Your task to perform on an android device: Search for seafood restaurants on Google Maps Image 0: 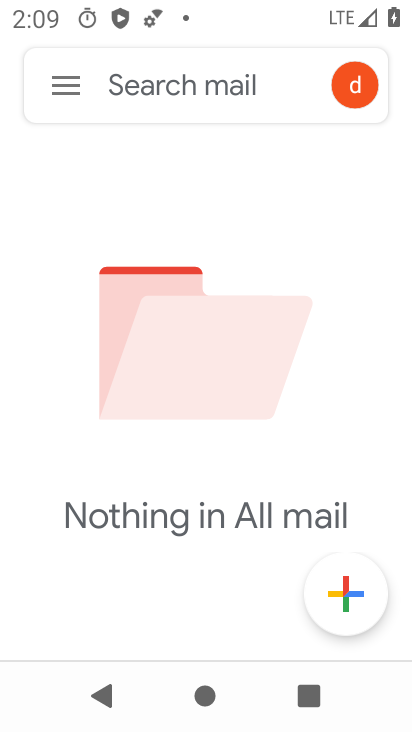
Step 0: press home button
Your task to perform on an android device: Search for seafood restaurants on Google Maps Image 1: 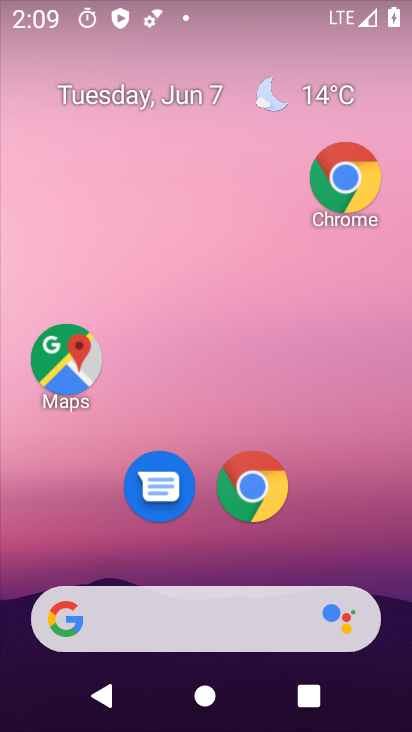
Step 1: click (67, 351)
Your task to perform on an android device: Search for seafood restaurants on Google Maps Image 2: 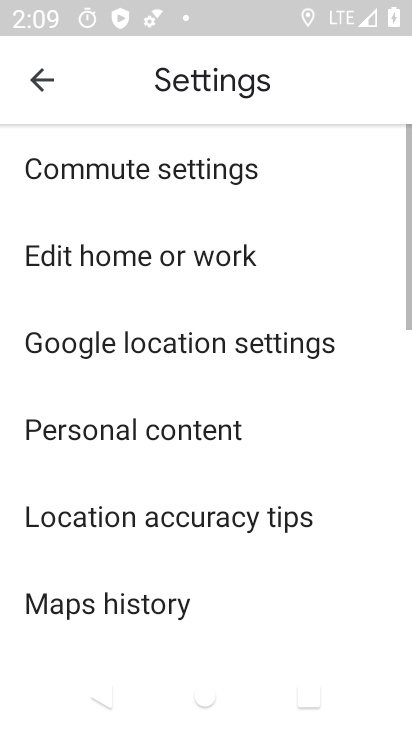
Step 2: click (54, 81)
Your task to perform on an android device: Search for seafood restaurants on Google Maps Image 3: 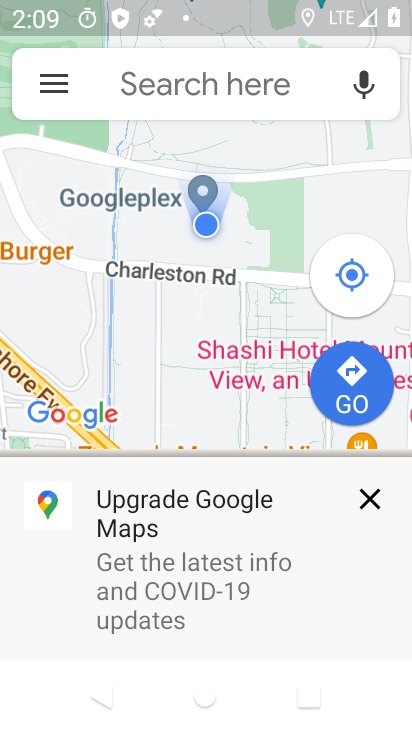
Step 3: click (372, 509)
Your task to perform on an android device: Search for seafood restaurants on Google Maps Image 4: 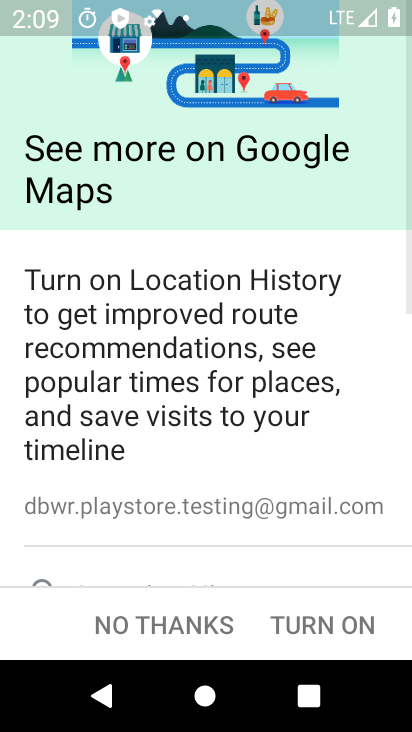
Step 4: click (190, 637)
Your task to perform on an android device: Search for seafood restaurants on Google Maps Image 5: 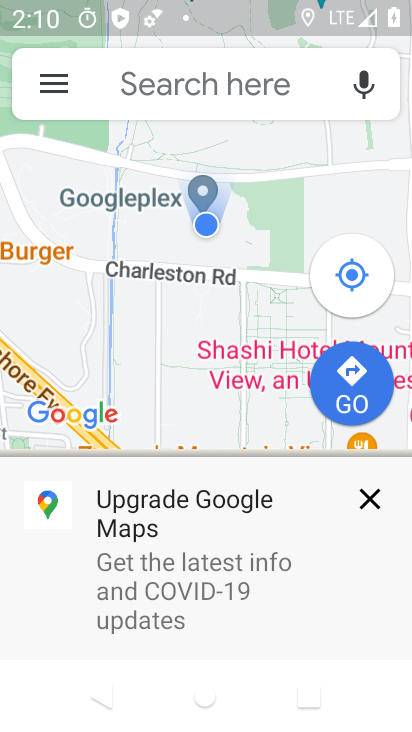
Step 5: click (366, 504)
Your task to perform on an android device: Search for seafood restaurants on Google Maps Image 6: 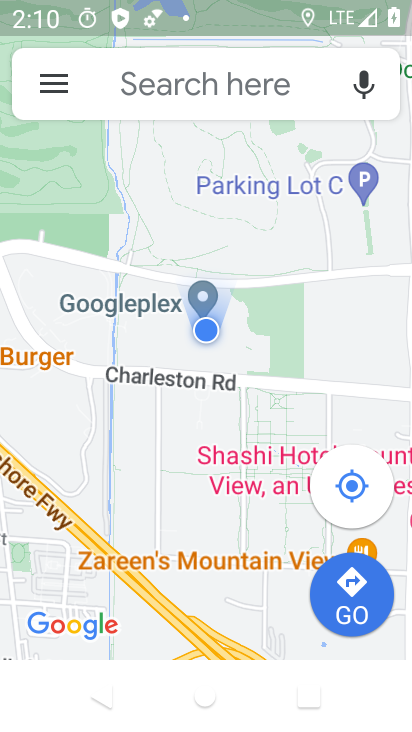
Step 6: click (210, 86)
Your task to perform on an android device: Search for seafood restaurants on Google Maps Image 7: 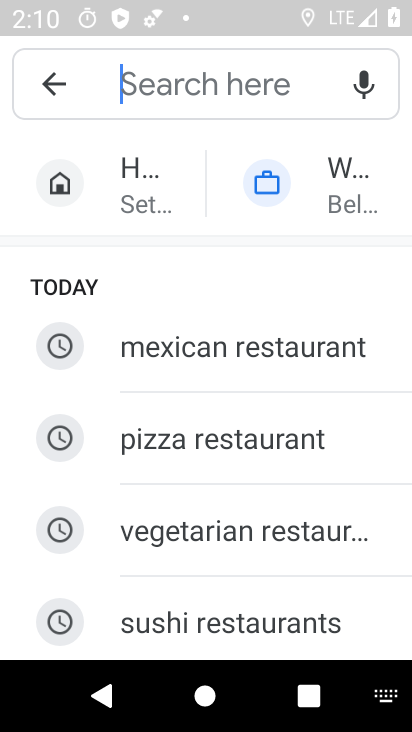
Step 7: type "seafood restaurants"
Your task to perform on an android device: Search for seafood restaurants on Google Maps Image 8: 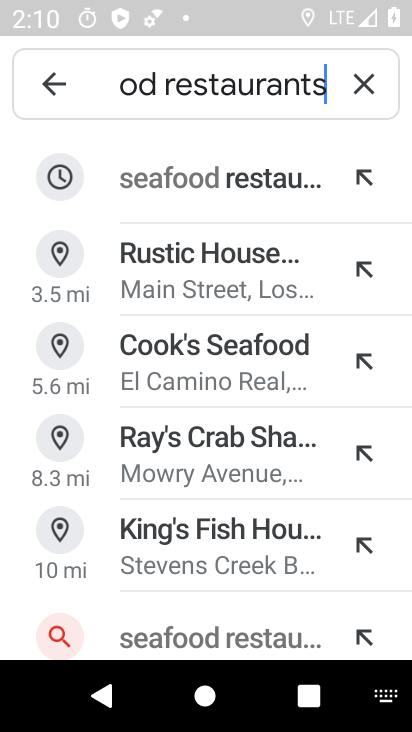
Step 8: click (237, 171)
Your task to perform on an android device: Search for seafood restaurants on Google Maps Image 9: 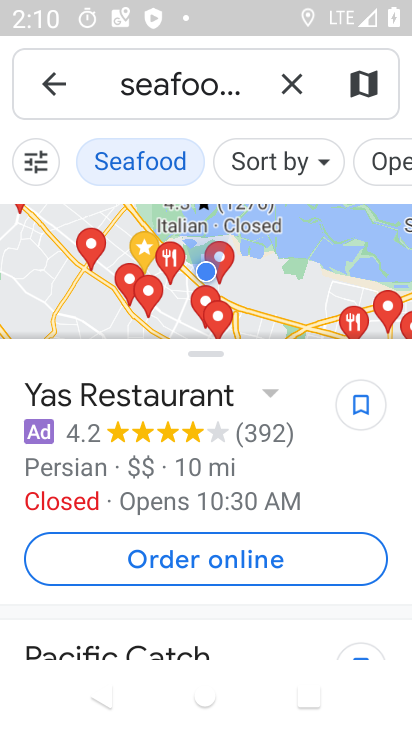
Step 9: task complete